Your task to perform on an android device: Go to Amazon Image 0: 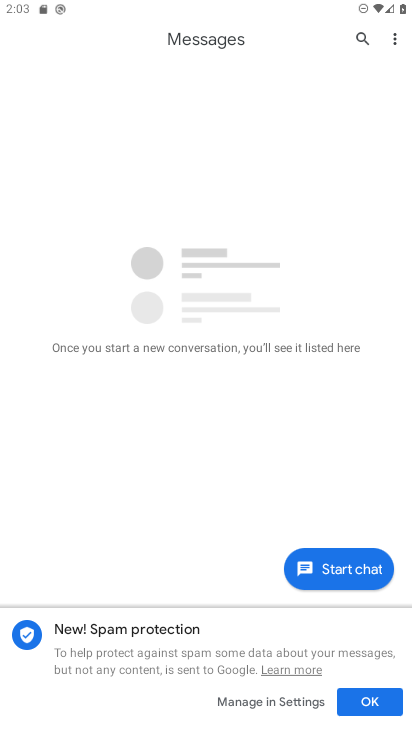
Step 0: press home button
Your task to perform on an android device: Go to Amazon Image 1: 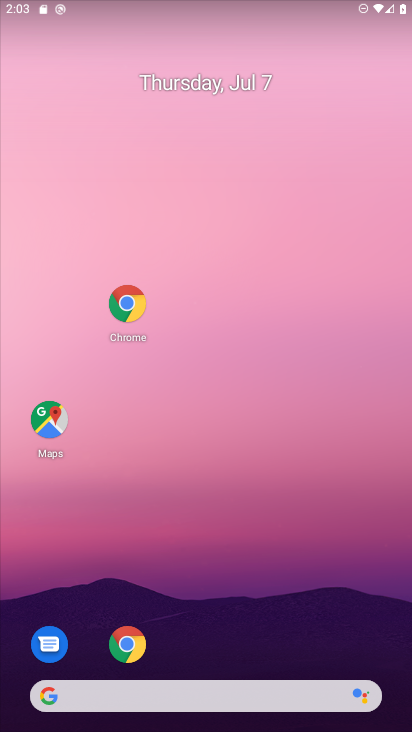
Step 1: drag from (203, 608) to (260, 61)
Your task to perform on an android device: Go to Amazon Image 2: 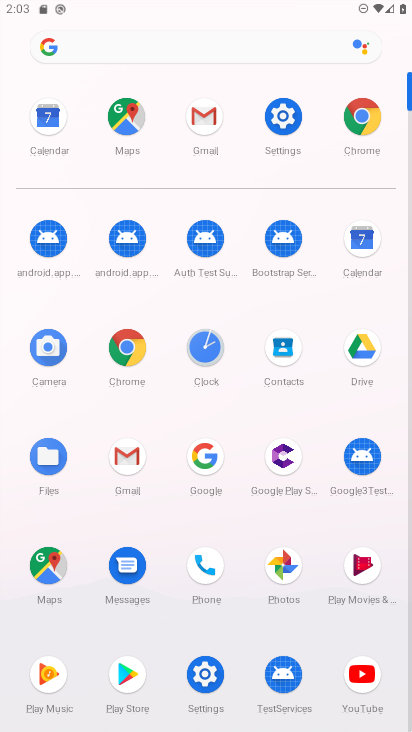
Step 2: click (126, 350)
Your task to perform on an android device: Go to Amazon Image 3: 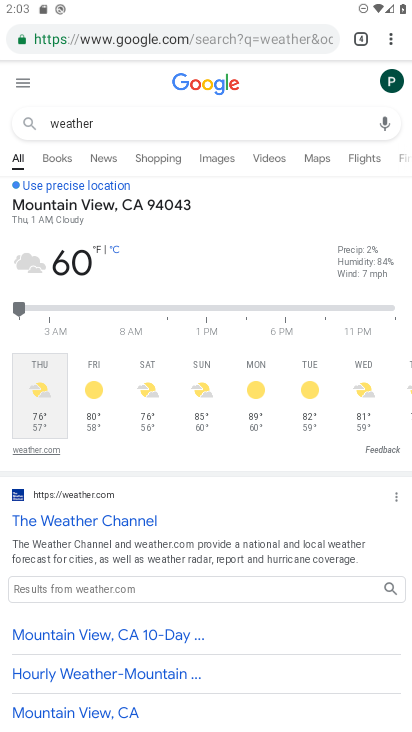
Step 3: click (365, 47)
Your task to perform on an android device: Go to Amazon Image 4: 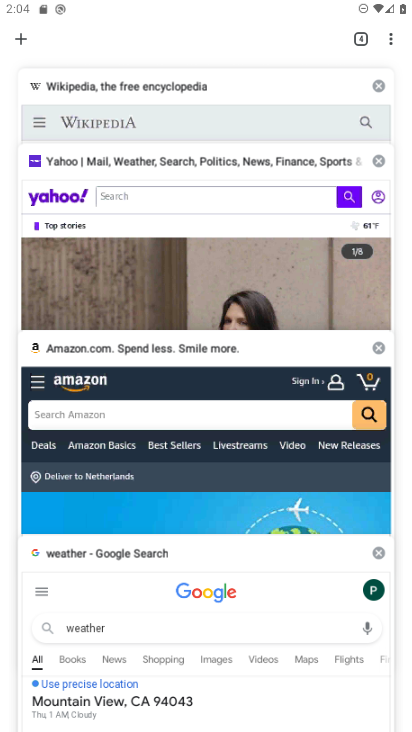
Step 4: click (203, 413)
Your task to perform on an android device: Go to Amazon Image 5: 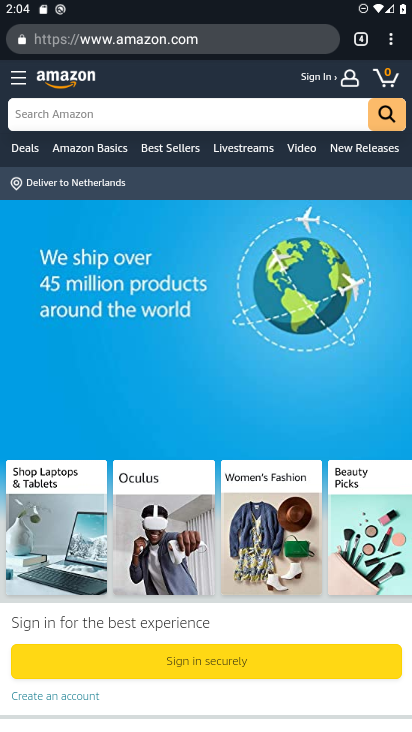
Step 5: task complete